Your task to perform on an android device: Open battery settings Image 0: 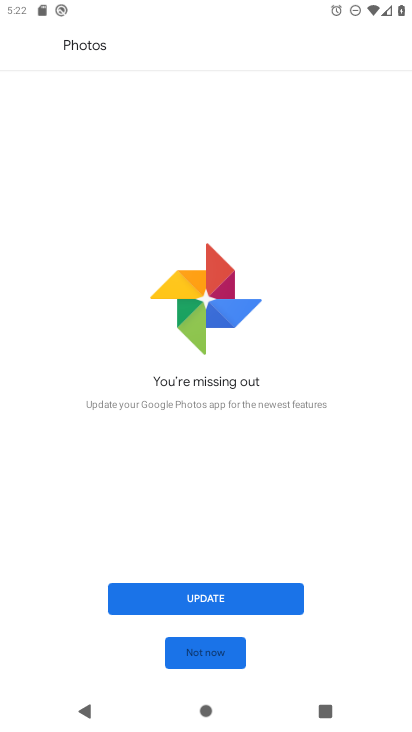
Step 0: press home button
Your task to perform on an android device: Open battery settings Image 1: 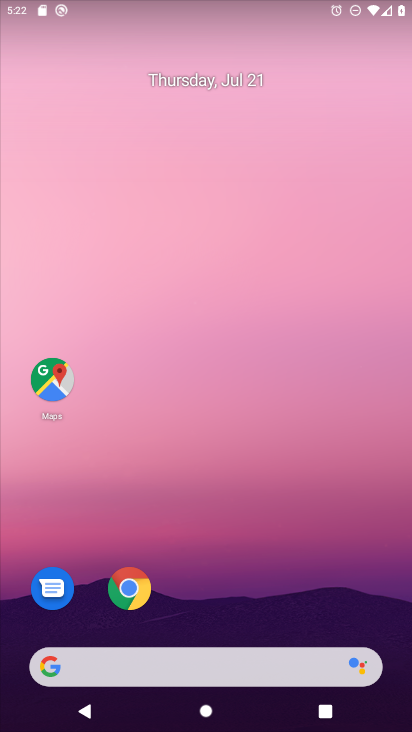
Step 1: drag from (356, 606) to (249, 126)
Your task to perform on an android device: Open battery settings Image 2: 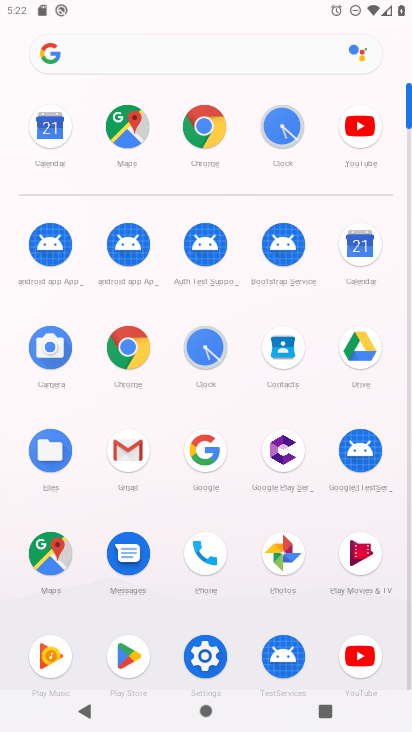
Step 2: click (215, 649)
Your task to perform on an android device: Open battery settings Image 3: 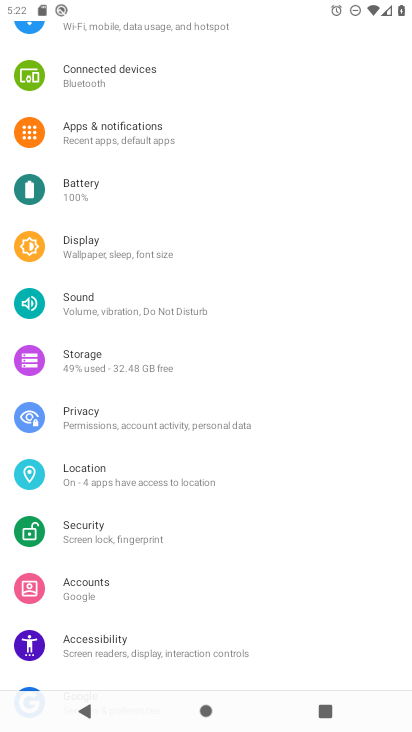
Step 3: click (146, 191)
Your task to perform on an android device: Open battery settings Image 4: 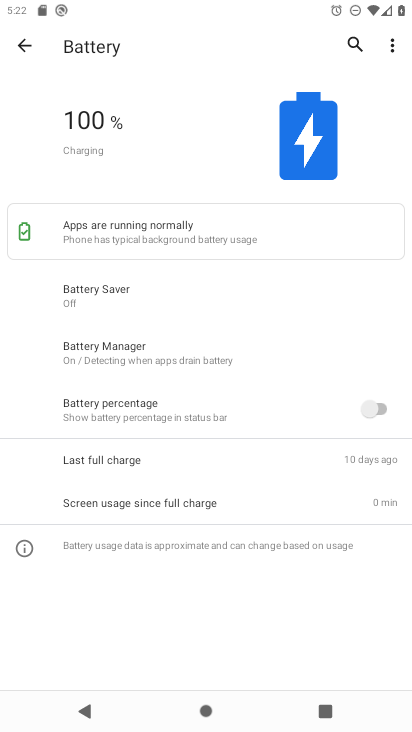
Step 4: task complete